Your task to perform on an android device: show emergency info Image 0: 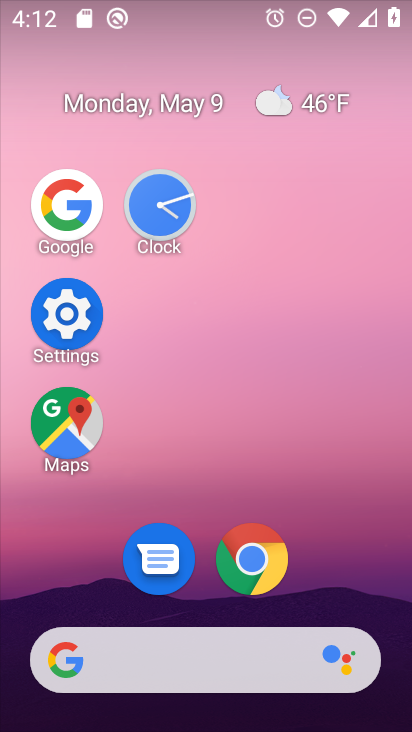
Step 0: click (62, 318)
Your task to perform on an android device: show emergency info Image 1: 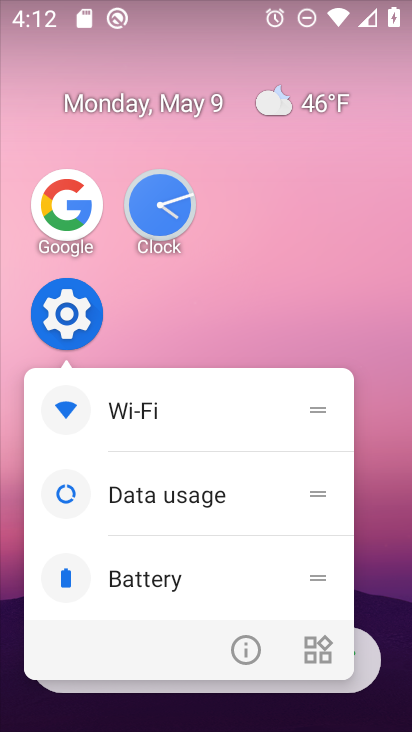
Step 1: click (62, 318)
Your task to perform on an android device: show emergency info Image 2: 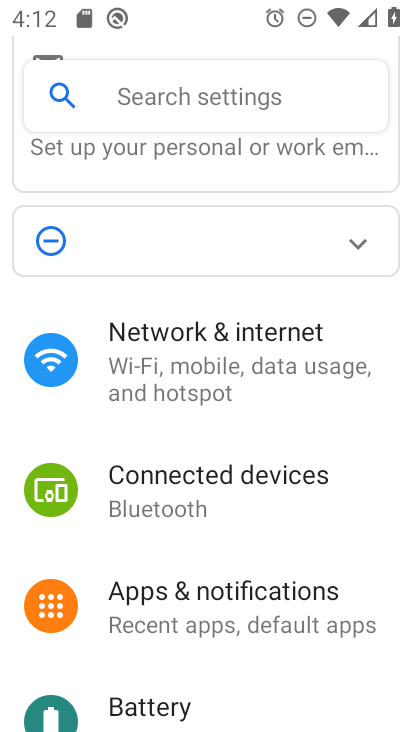
Step 2: drag from (254, 632) to (251, 158)
Your task to perform on an android device: show emergency info Image 3: 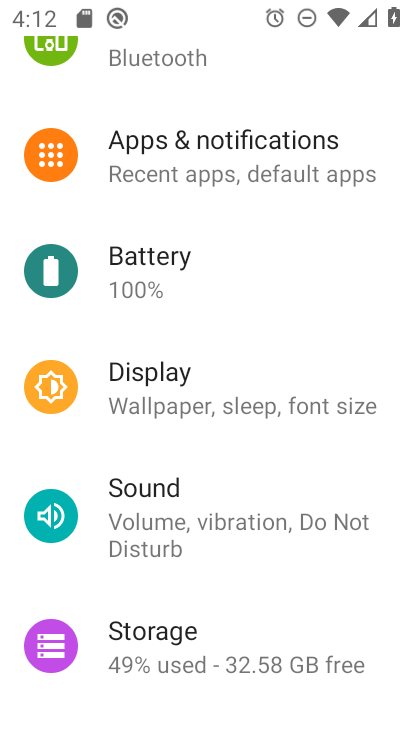
Step 3: drag from (202, 603) to (217, 229)
Your task to perform on an android device: show emergency info Image 4: 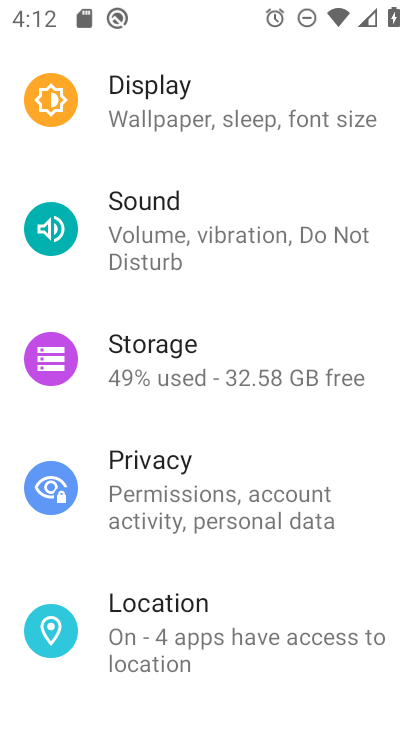
Step 4: drag from (235, 600) to (240, 252)
Your task to perform on an android device: show emergency info Image 5: 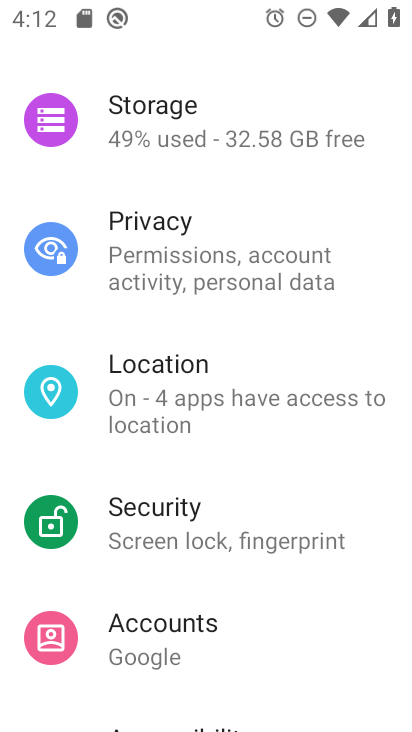
Step 5: drag from (231, 614) to (231, 221)
Your task to perform on an android device: show emergency info Image 6: 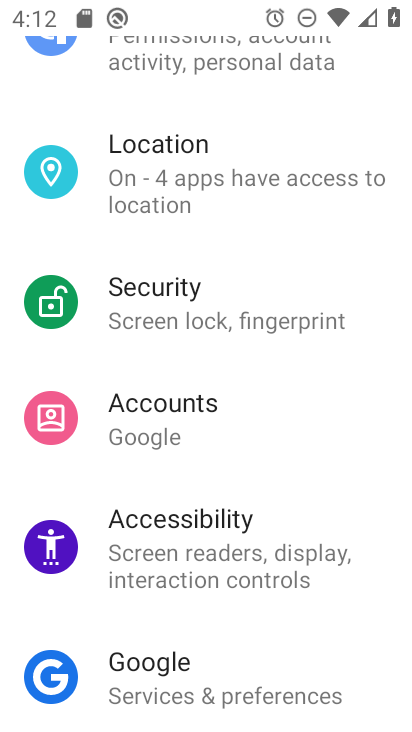
Step 6: drag from (319, 650) to (262, 195)
Your task to perform on an android device: show emergency info Image 7: 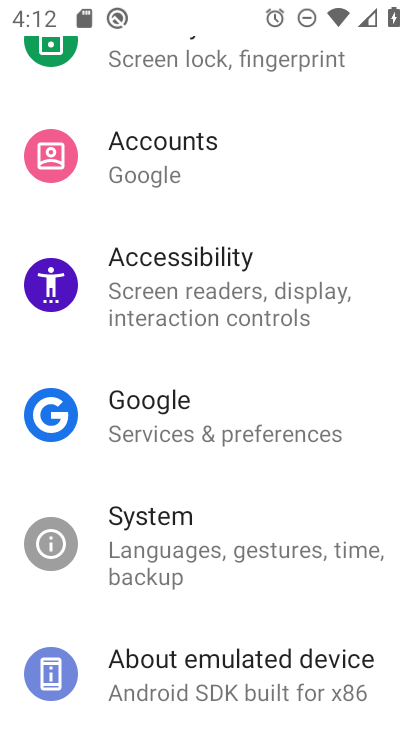
Step 7: drag from (310, 608) to (272, 193)
Your task to perform on an android device: show emergency info Image 8: 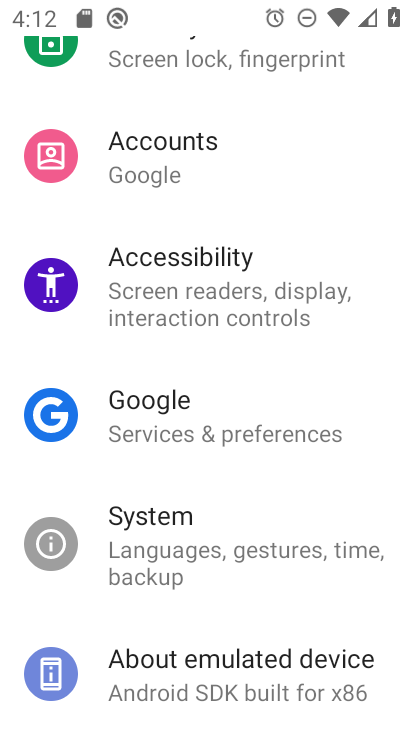
Step 8: click (222, 652)
Your task to perform on an android device: show emergency info Image 9: 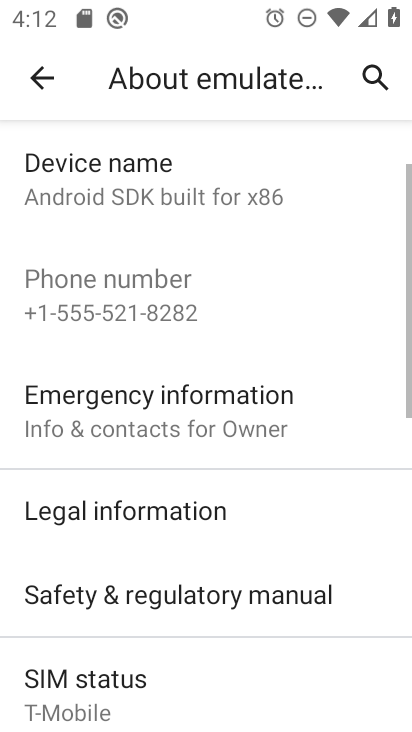
Step 9: click (210, 457)
Your task to perform on an android device: show emergency info Image 10: 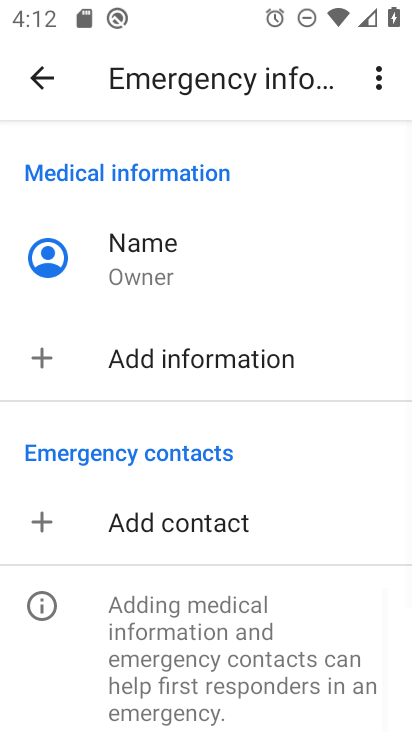
Step 10: task complete